Your task to perform on an android device: turn on data saver in the chrome app Image 0: 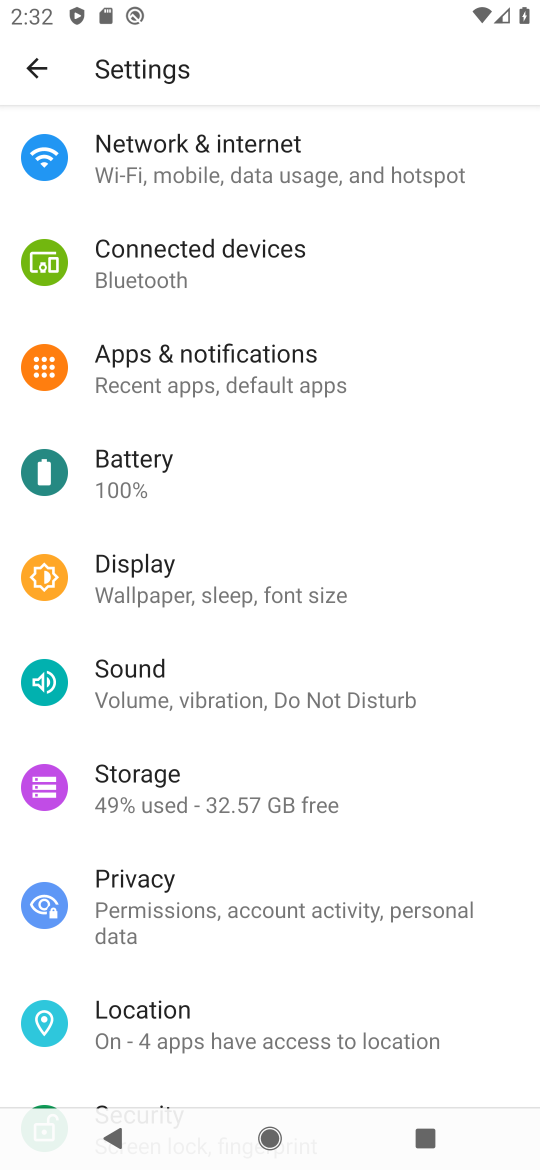
Step 0: press home button
Your task to perform on an android device: turn on data saver in the chrome app Image 1: 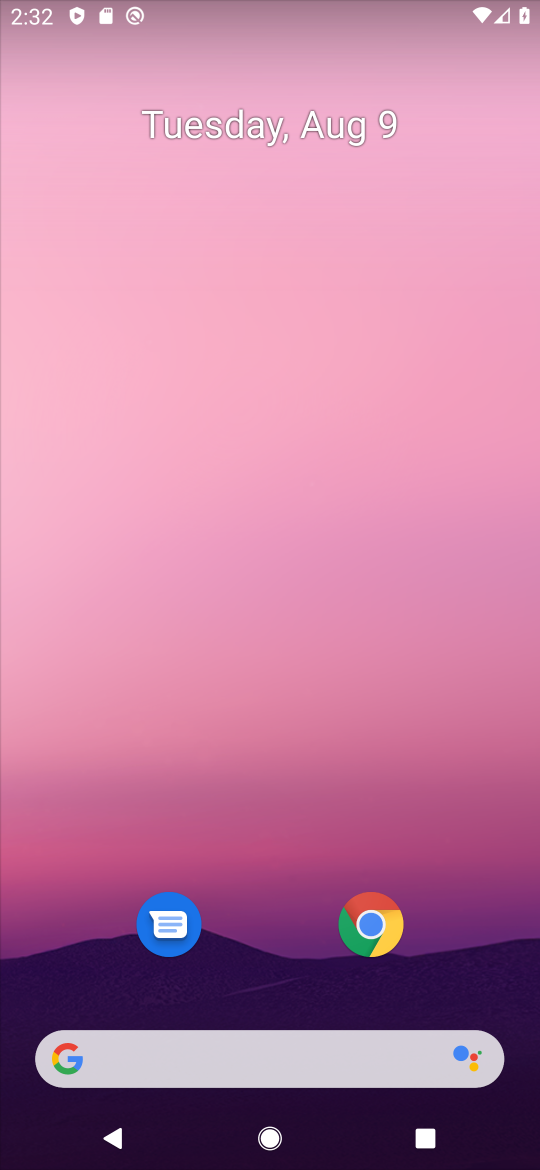
Step 1: click (379, 915)
Your task to perform on an android device: turn on data saver in the chrome app Image 2: 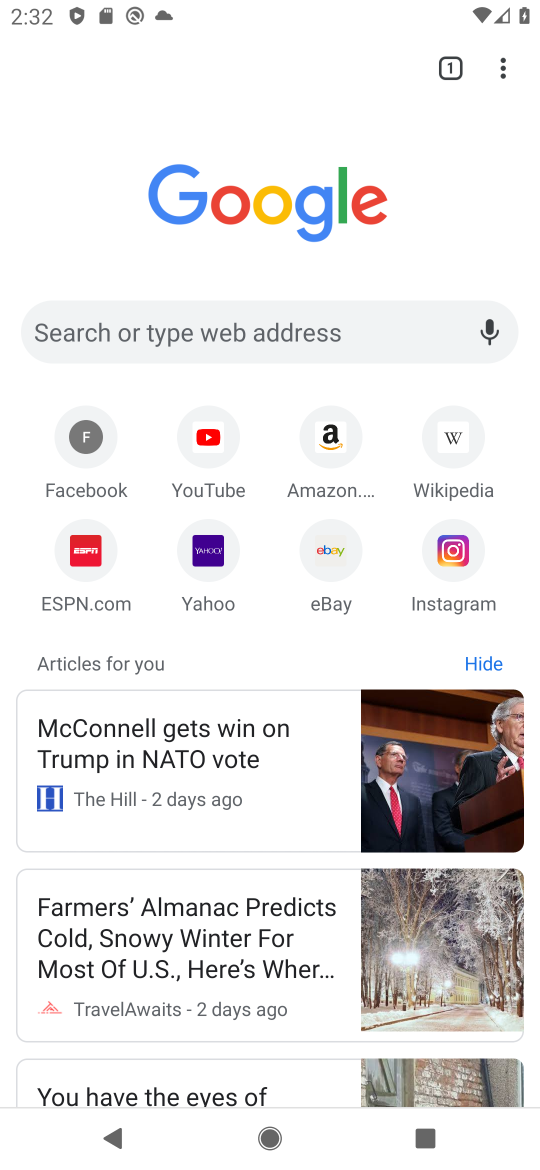
Step 2: click (499, 64)
Your task to perform on an android device: turn on data saver in the chrome app Image 3: 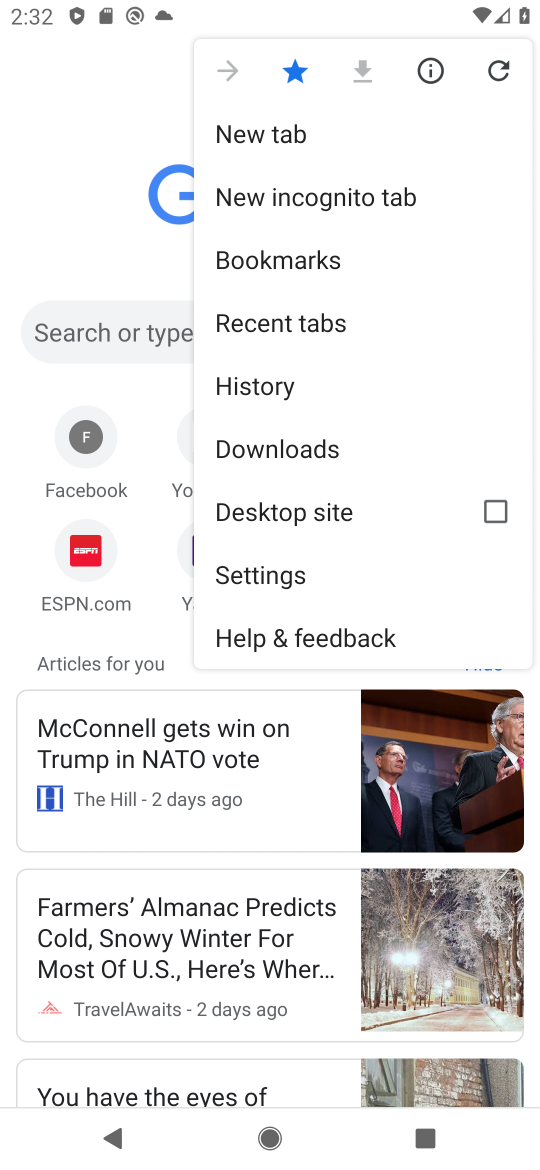
Step 3: click (294, 563)
Your task to perform on an android device: turn on data saver in the chrome app Image 4: 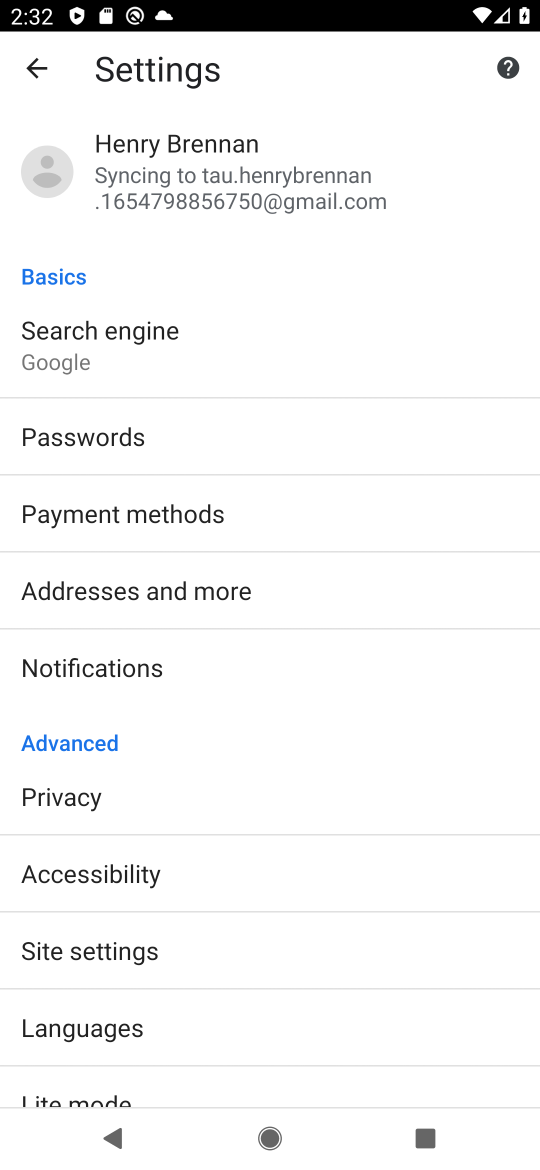
Step 4: drag from (304, 930) to (366, 599)
Your task to perform on an android device: turn on data saver in the chrome app Image 5: 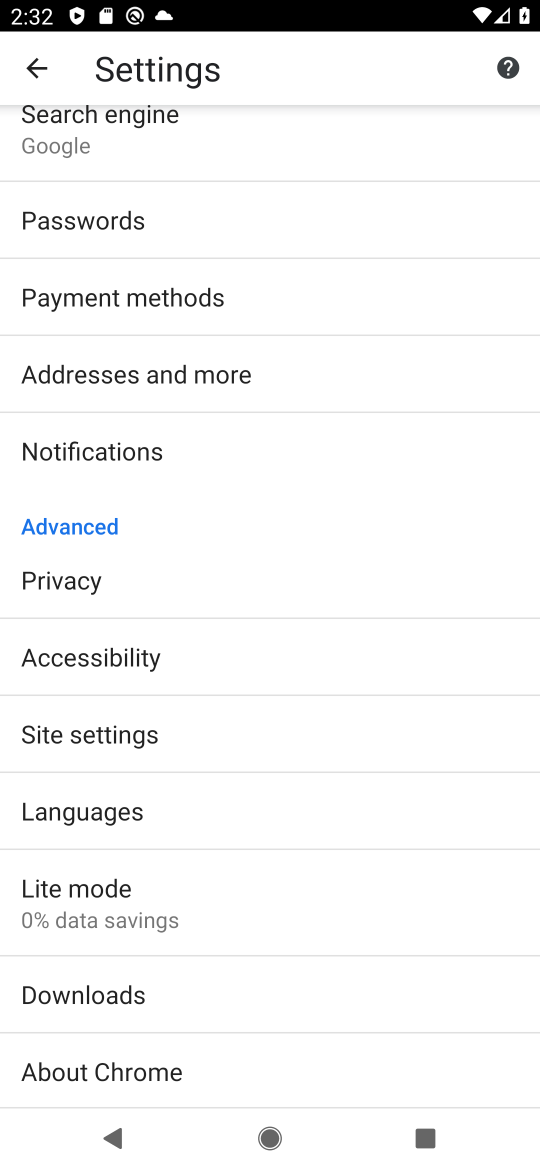
Step 5: click (229, 905)
Your task to perform on an android device: turn on data saver in the chrome app Image 6: 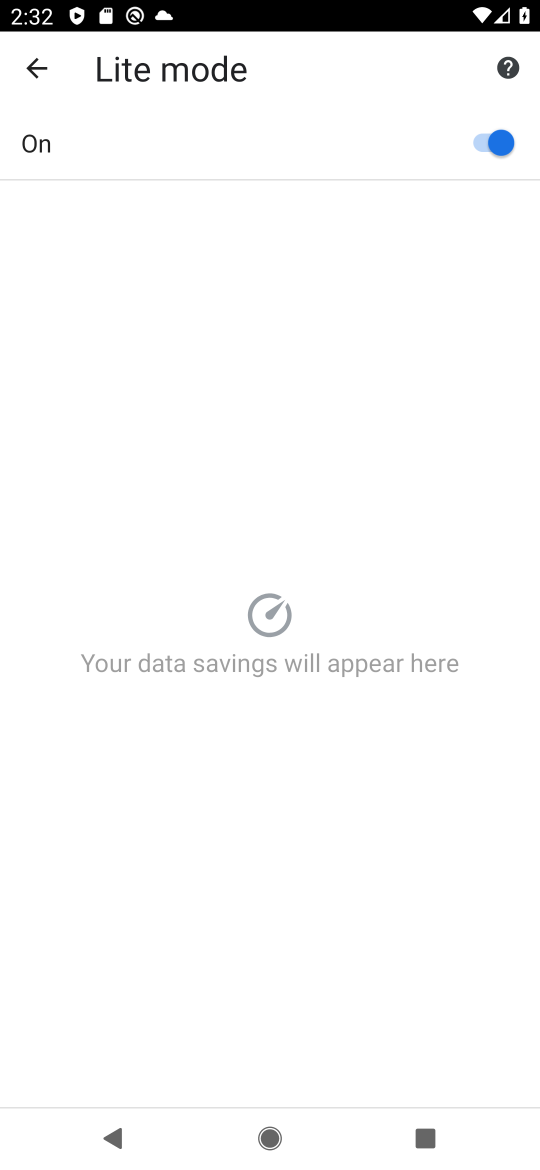
Step 6: task complete